Your task to perform on an android device: open a bookmark in the chrome app Image 0: 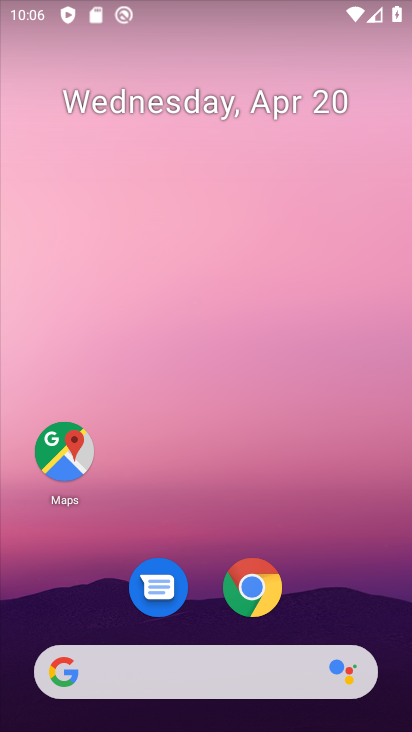
Step 0: click (245, 583)
Your task to perform on an android device: open a bookmark in the chrome app Image 1: 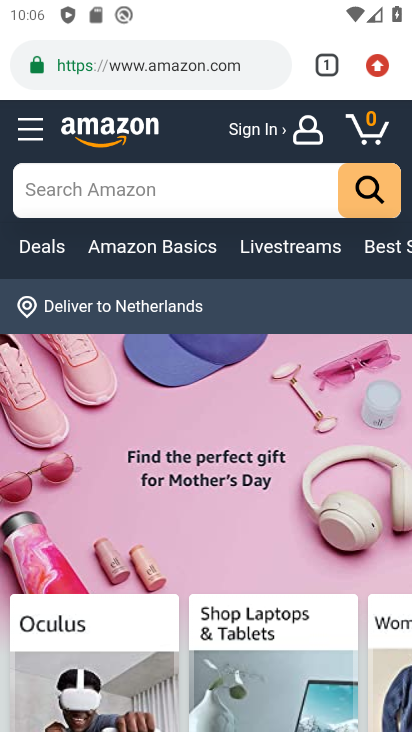
Step 1: click (376, 63)
Your task to perform on an android device: open a bookmark in the chrome app Image 2: 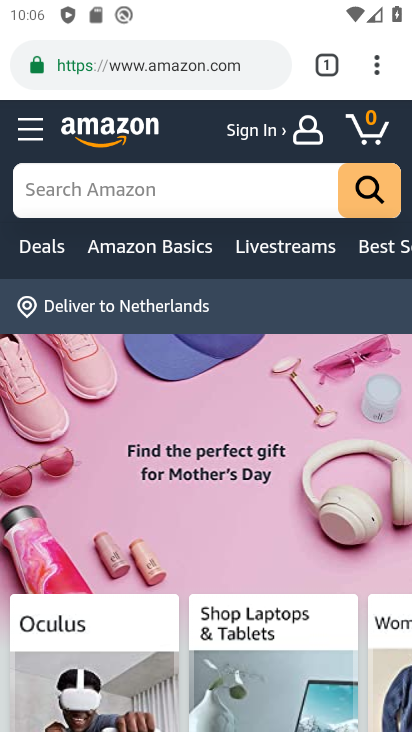
Step 2: click (377, 63)
Your task to perform on an android device: open a bookmark in the chrome app Image 3: 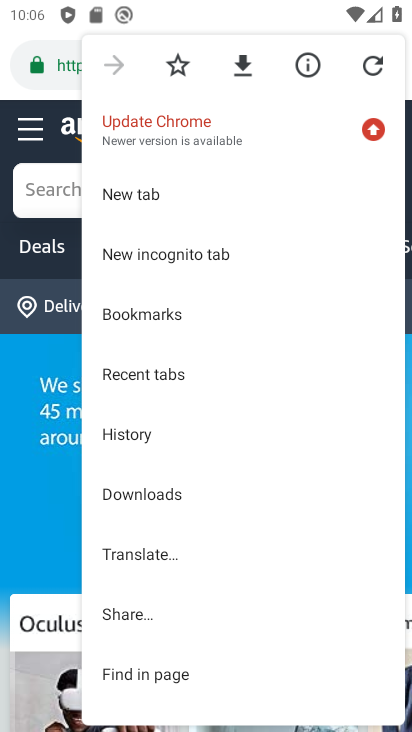
Step 3: click (179, 313)
Your task to perform on an android device: open a bookmark in the chrome app Image 4: 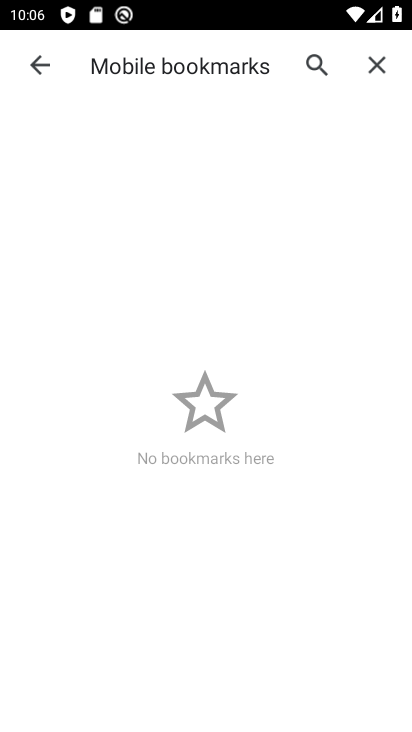
Step 4: task complete